Your task to perform on an android device: change the clock display to show seconds Image 0: 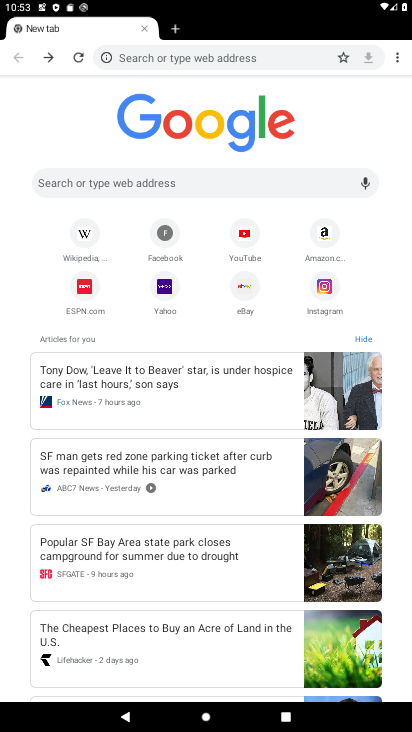
Step 0: press home button
Your task to perform on an android device: change the clock display to show seconds Image 1: 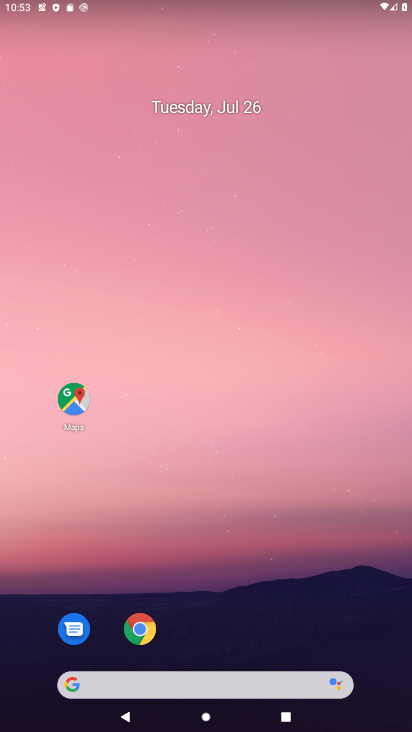
Step 1: drag from (165, 638) to (157, 173)
Your task to perform on an android device: change the clock display to show seconds Image 2: 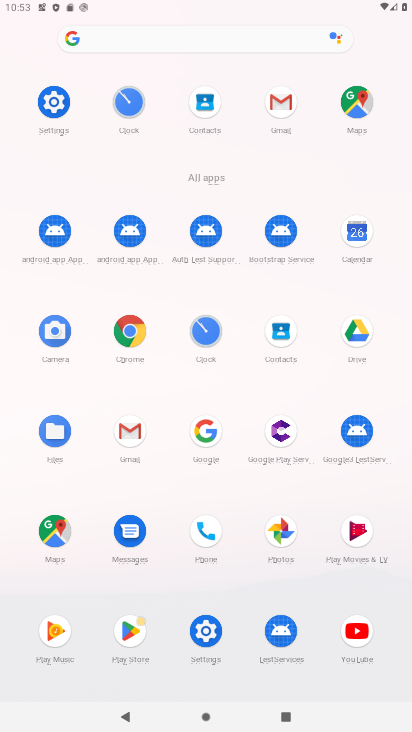
Step 2: click (208, 354)
Your task to perform on an android device: change the clock display to show seconds Image 3: 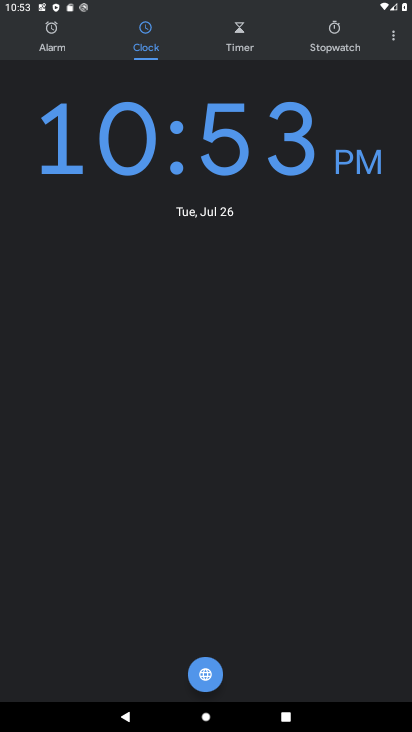
Step 3: click (397, 39)
Your task to perform on an android device: change the clock display to show seconds Image 4: 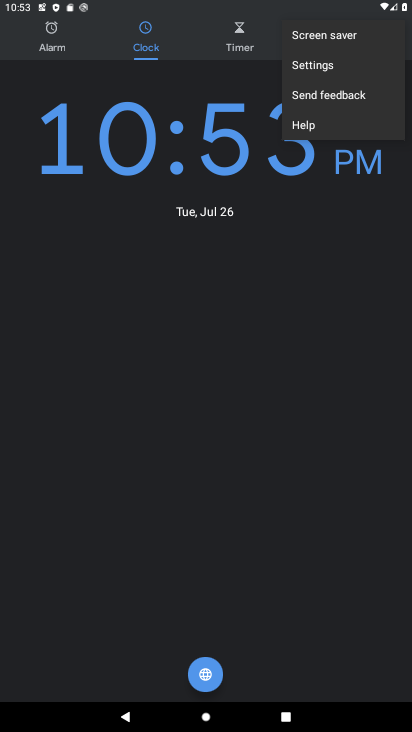
Step 4: click (333, 71)
Your task to perform on an android device: change the clock display to show seconds Image 5: 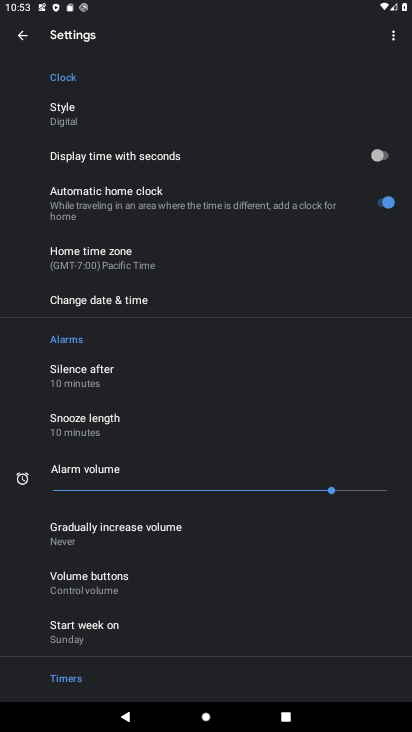
Step 5: click (386, 171)
Your task to perform on an android device: change the clock display to show seconds Image 6: 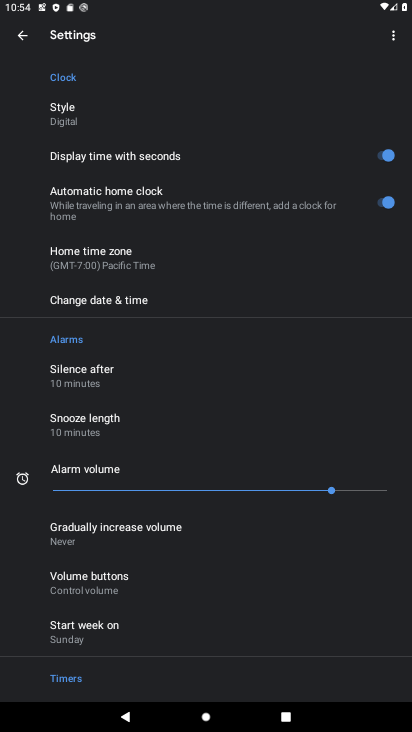
Step 6: task complete